Your task to perform on an android device: Open battery settings Image 0: 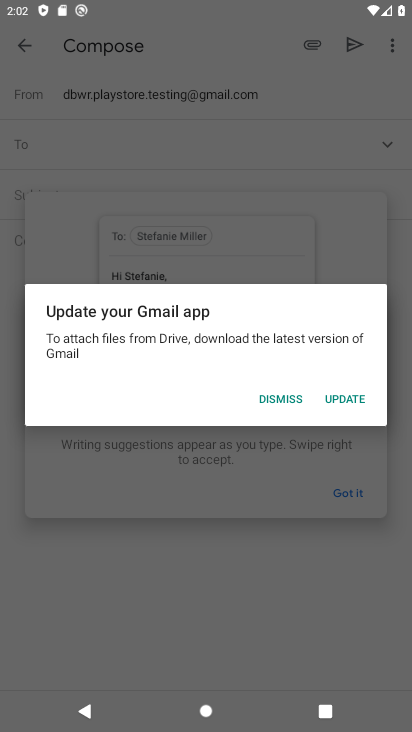
Step 0: press home button
Your task to perform on an android device: Open battery settings Image 1: 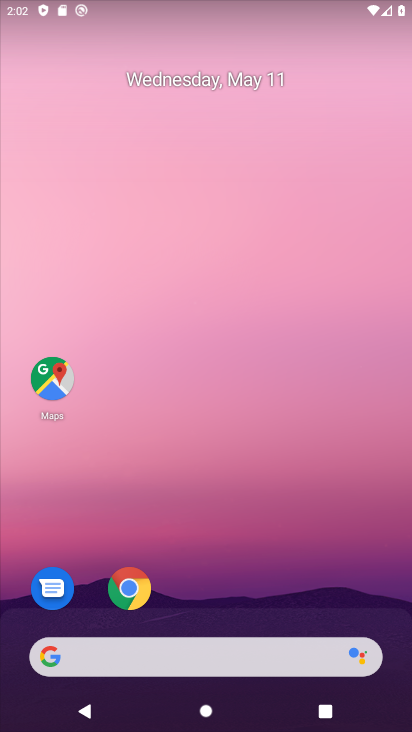
Step 1: click (200, 110)
Your task to perform on an android device: Open battery settings Image 2: 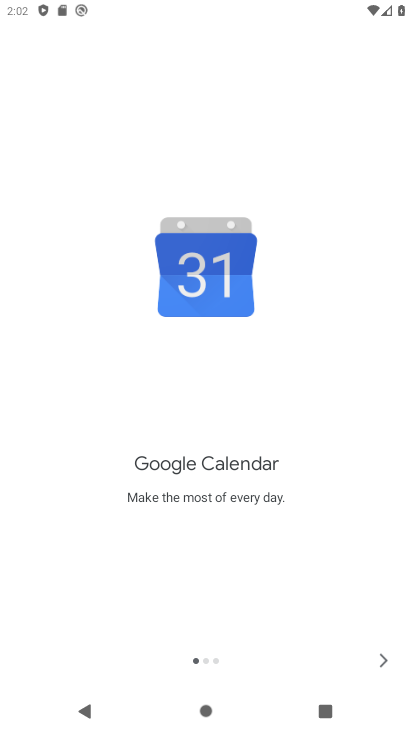
Step 2: drag from (188, 165) to (185, 73)
Your task to perform on an android device: Open battery settings Image 3: 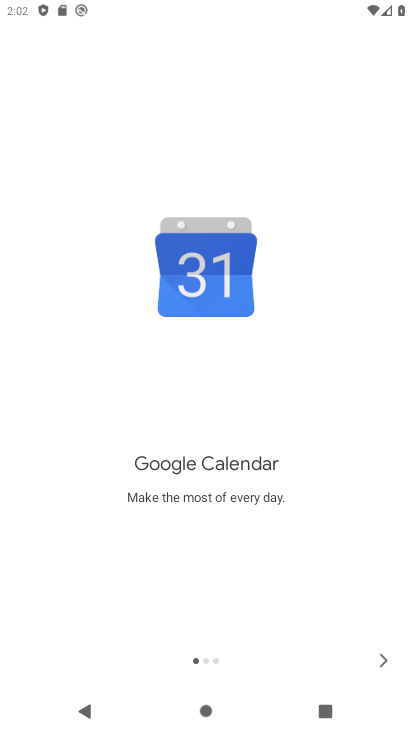
Step 3: press home button
Your task to perform on an android device: Open battery settings Image 4: 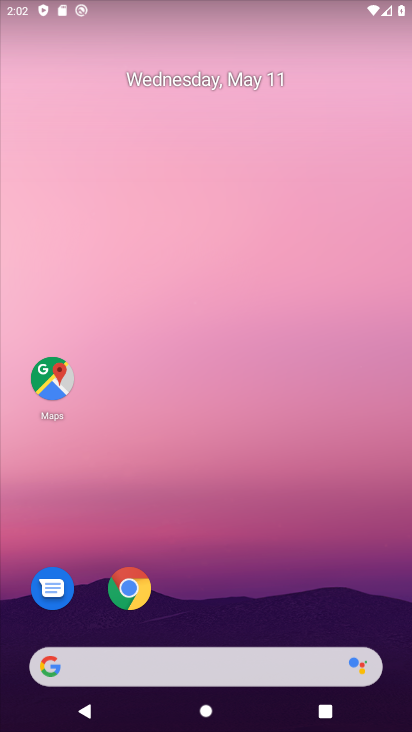
Step 4: press home button
Your task to perform on an android device: Open battery settings Image 5: 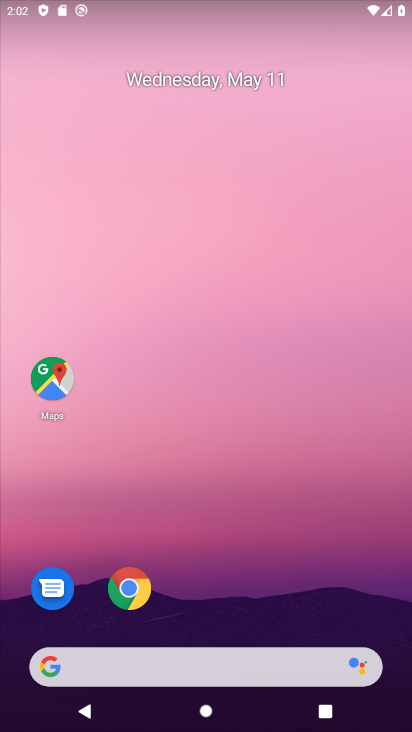
Step 5: drag from (245, 586) to (317, 41)
Your task to perform on an android device: Open battery settings Image 6: 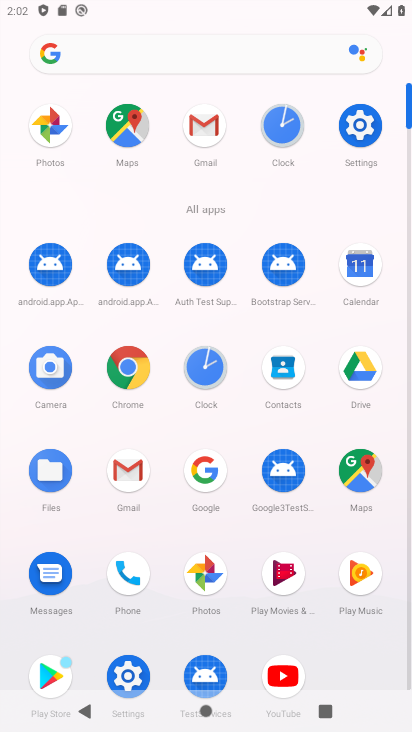
Step 6: click (362, 105)
Your task to perform on an android device: Open battery settings Image 7: 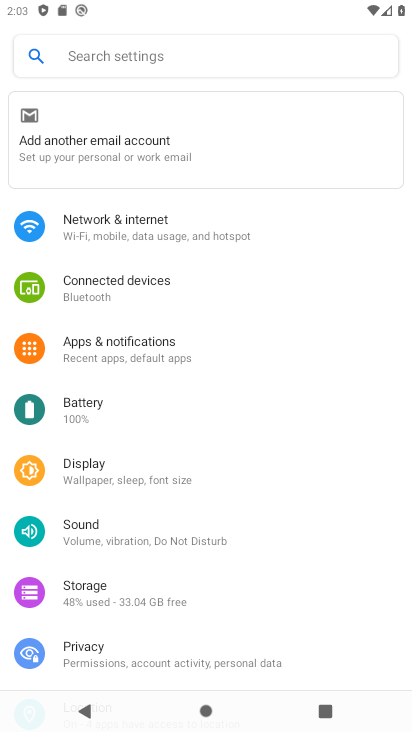
Step 7: click (94, 428)
Your task to perform on an android device: Open battery settings Image 8: 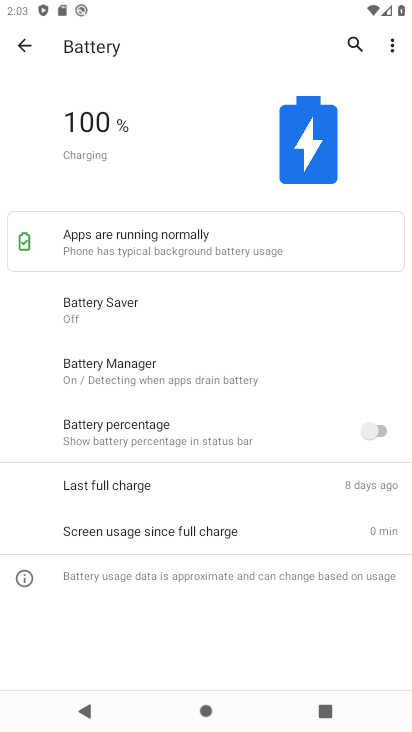
Step 8: task complete